Your task to perform on an android device: Show me the alarms in the clock app Image 0: 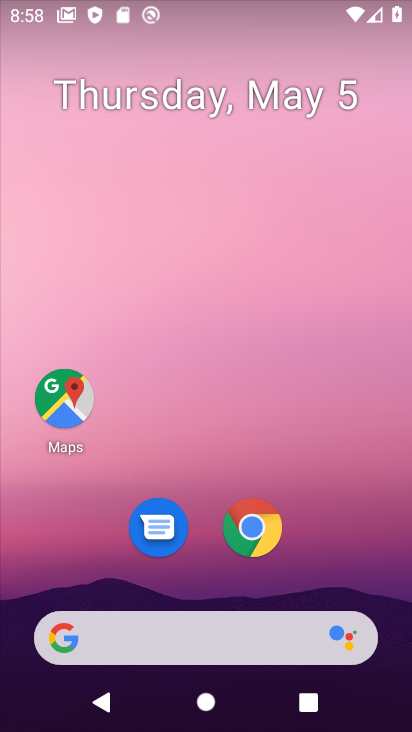
Step 0: drag from (389, 601) to (290, 87)
Your task to perform on an android device: Show me the alarms in the clock app Image 1: 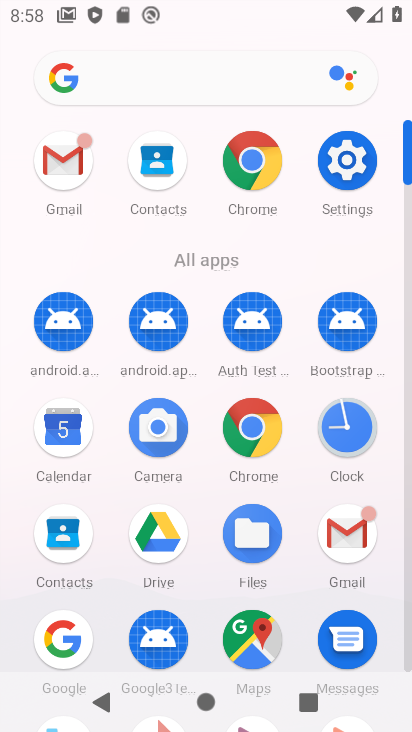
Step 1: click (347, 419)
Your task to perform on an android device: Show me the alarms in the clock app Image 2: 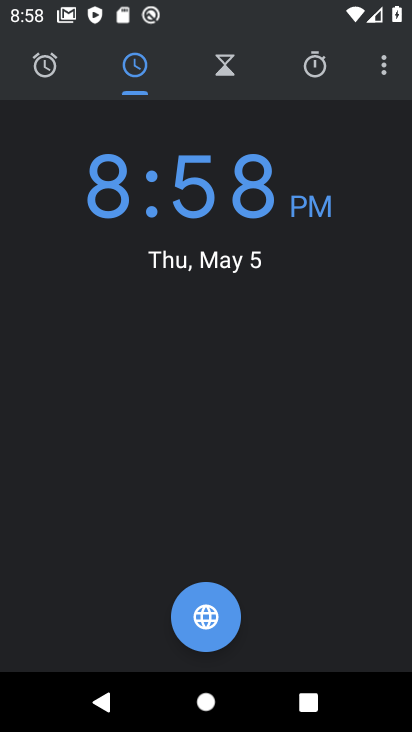
Step 2: click (387, 57)
Your task to perform on an android device: Show me the alarms in the clock app Image 3: 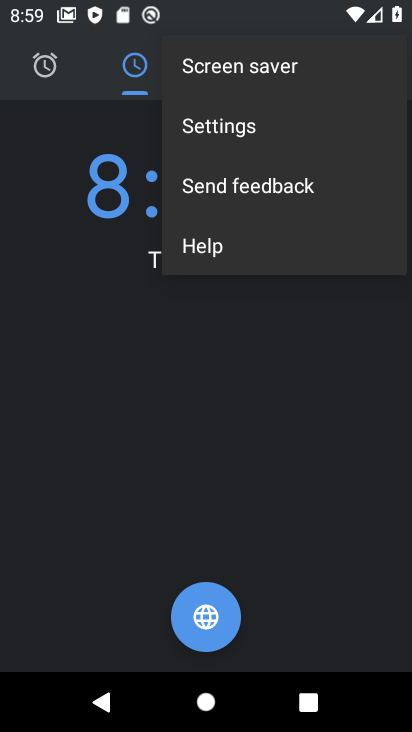
Step 3: click (39, 72)
Your task to perform on an android device: Show me the alarms in the clock app Image 4: 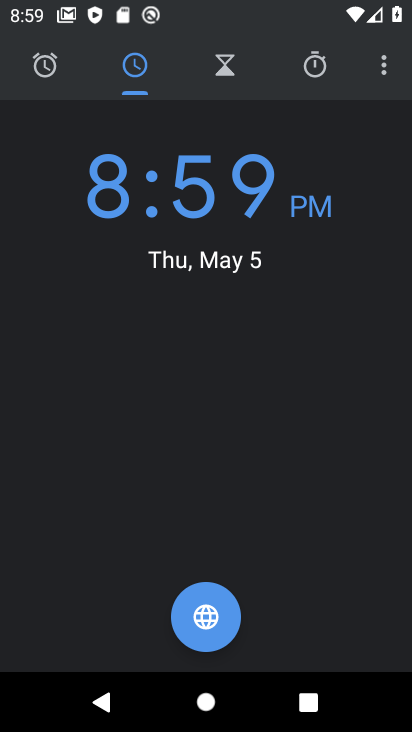
Step 4: click (36, 75)
Your task to perform on an android device: Show me the alarms in the clock app Image 5: 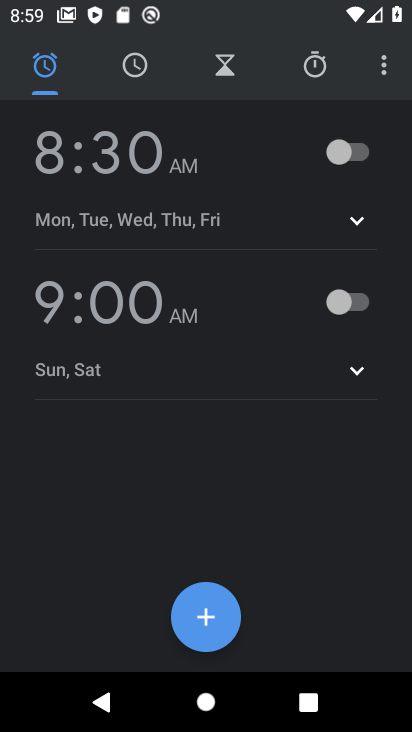
Step 5: task complete